Your task to perform on an android device: read, delete, or share a saved page in the chrome app Image 0: 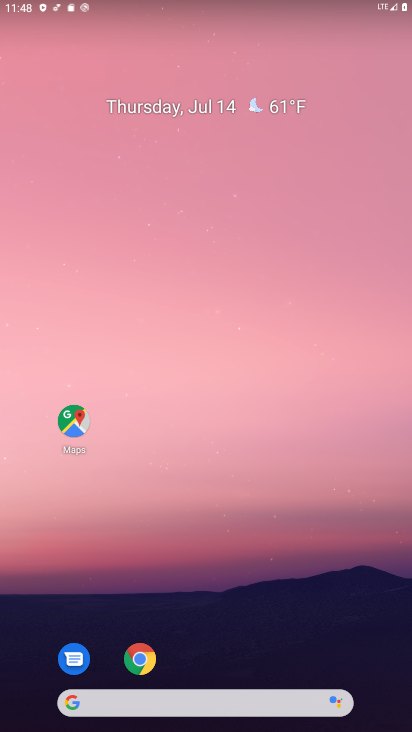
Step 0: click (139, 662)
Your task to perform on an android device: read, delete, or share a saved page in the chrome app Image 1: 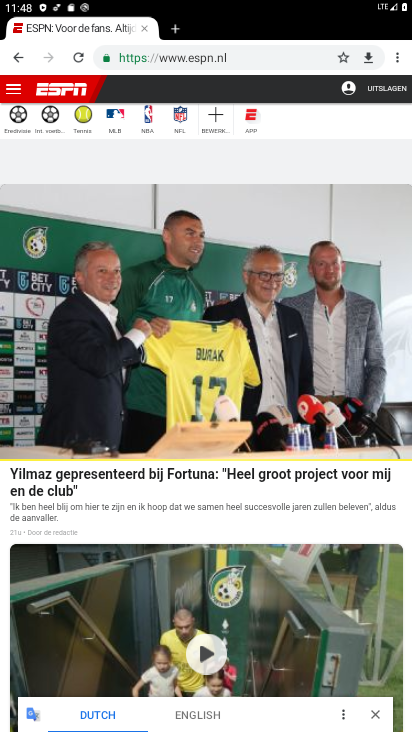
Step 1: click (398, 60)
Your task to perform on an android device: read, delete, or share a saved page in the chrome app Image 2: 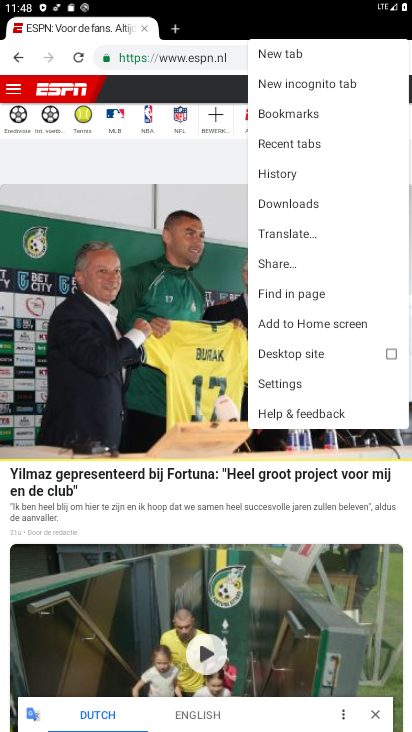
Step 2: click (297, 200)
Your task to perform on an android device: read, delete, or share a saved page in the chrome app Image 3: 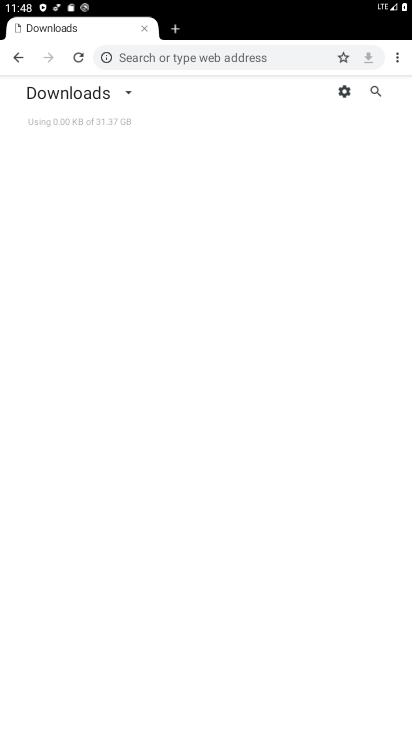
Step 3: click (126, 91)
Your task to perform on an android device: read, delete, or share a saved page in the chrome app Image 4: 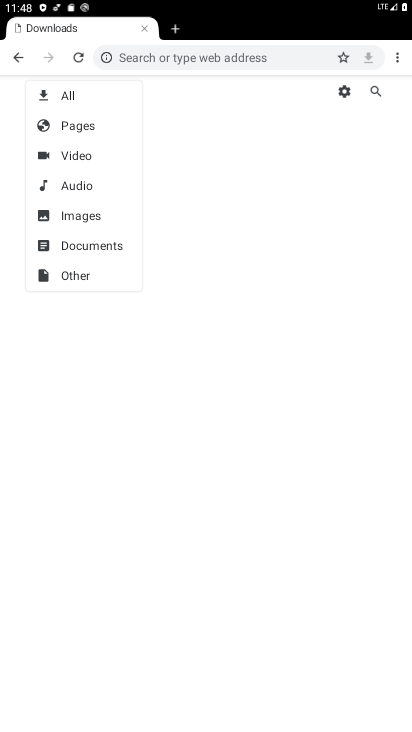
Step 4: click (98, 123)
Your task to perform on an android device: read, delete, or share a saved page in the chrome app Image 5: 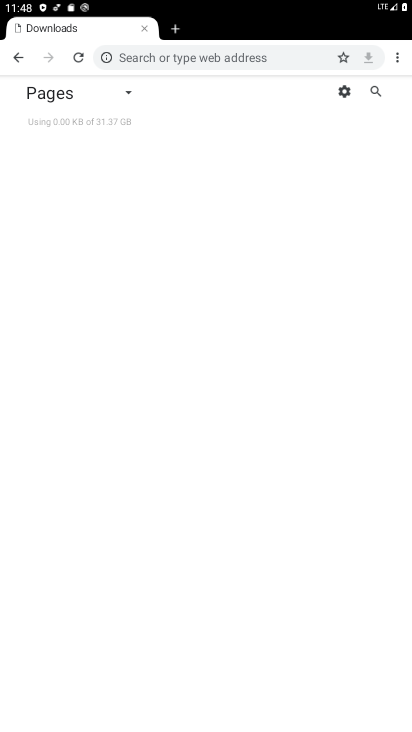
Step 5: click (98, 123)
Your task to perform on an android device: read, delete, or share a saved page in the chrome app Image 6: 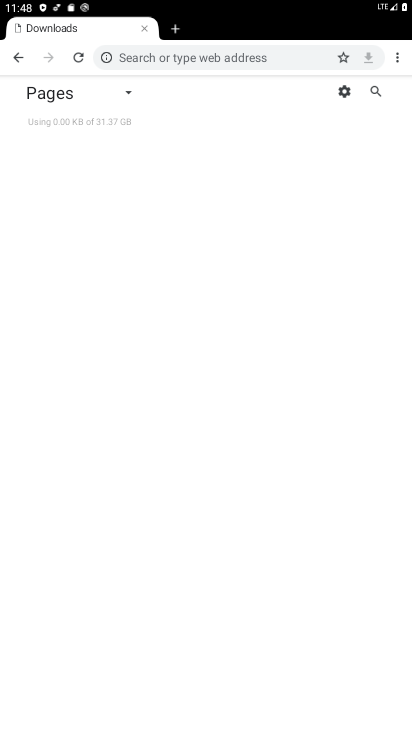
Step 6: click (125, 96)
Your task to perform on an android device: read, delete, or share a saved page in the chrome app Image 7: 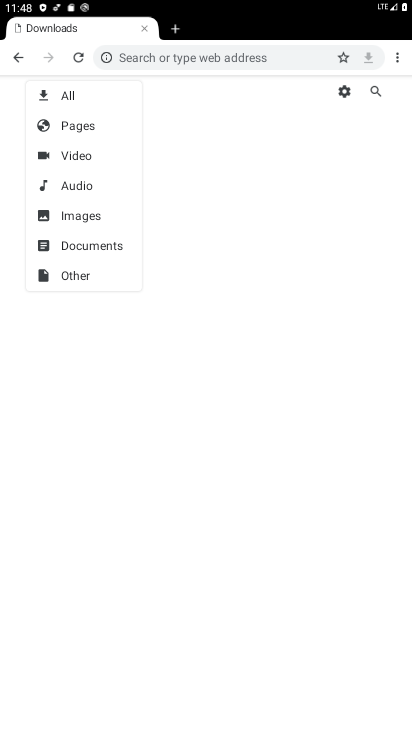
Step 7: click (88, 159)
Your task to perform on an android device: read, delete, or share a saved page in the chrome app Image 8: 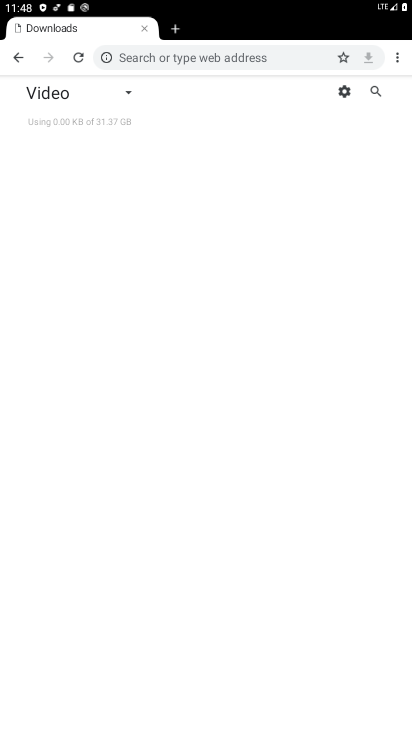
Step 8: click (133, 93)
Your task to perform on an android device: read, delete, or share a saved page in the chrome app Image 9: 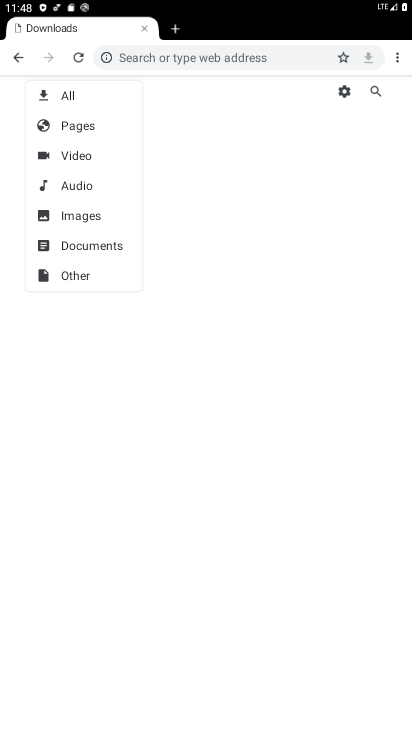
Step 9: click (95, 189)
Your task to perform on an android device: read, delete, or share a saved page in the chrome app Image 10: 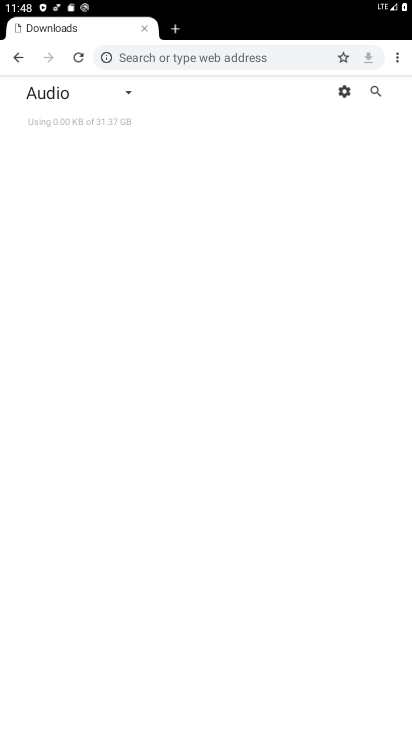
Step 10: task complete